Your task to perform on an android device: Add "amazon basics triple a" to the cart on amazon Image 0: 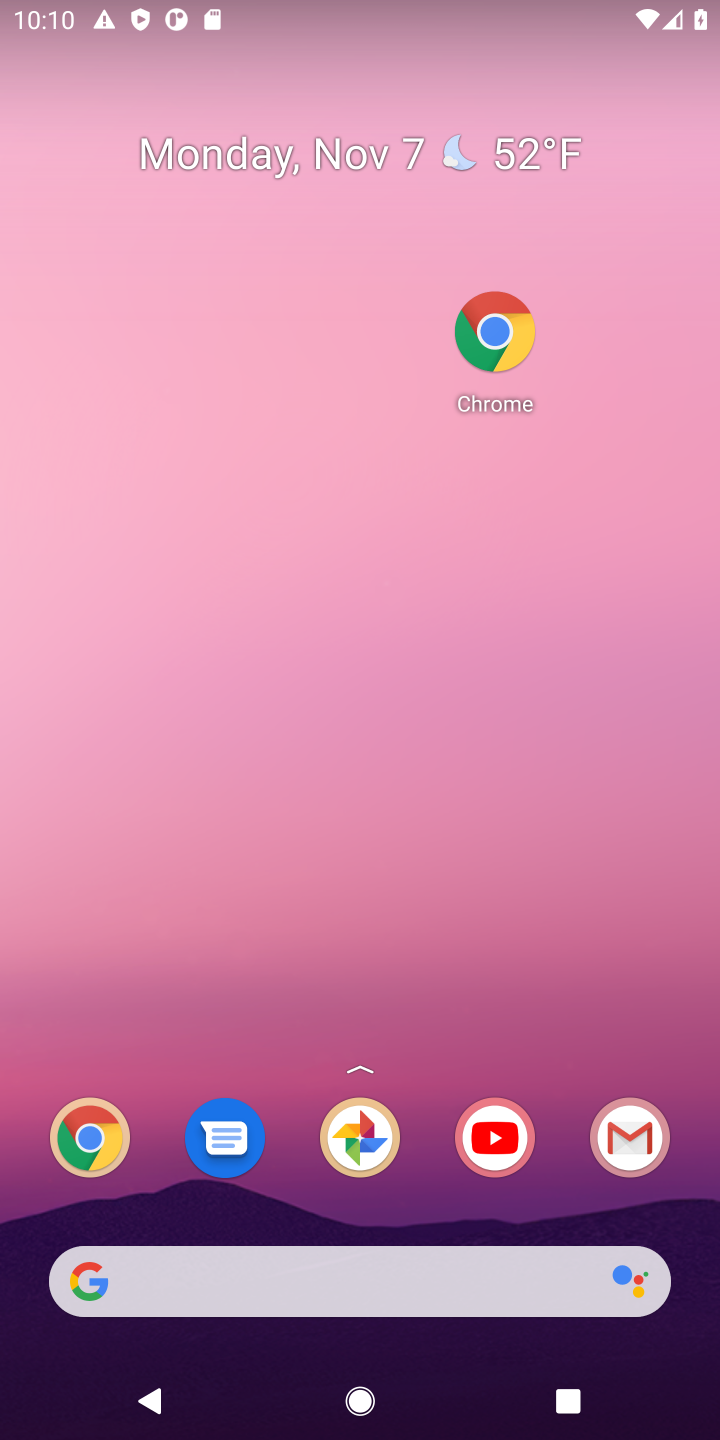
Step 0: drag from (430, 1210) to (395, 151)
Your task to perform on an android device: Add "amazon basics triple a" to the cart on amazon Image 1: 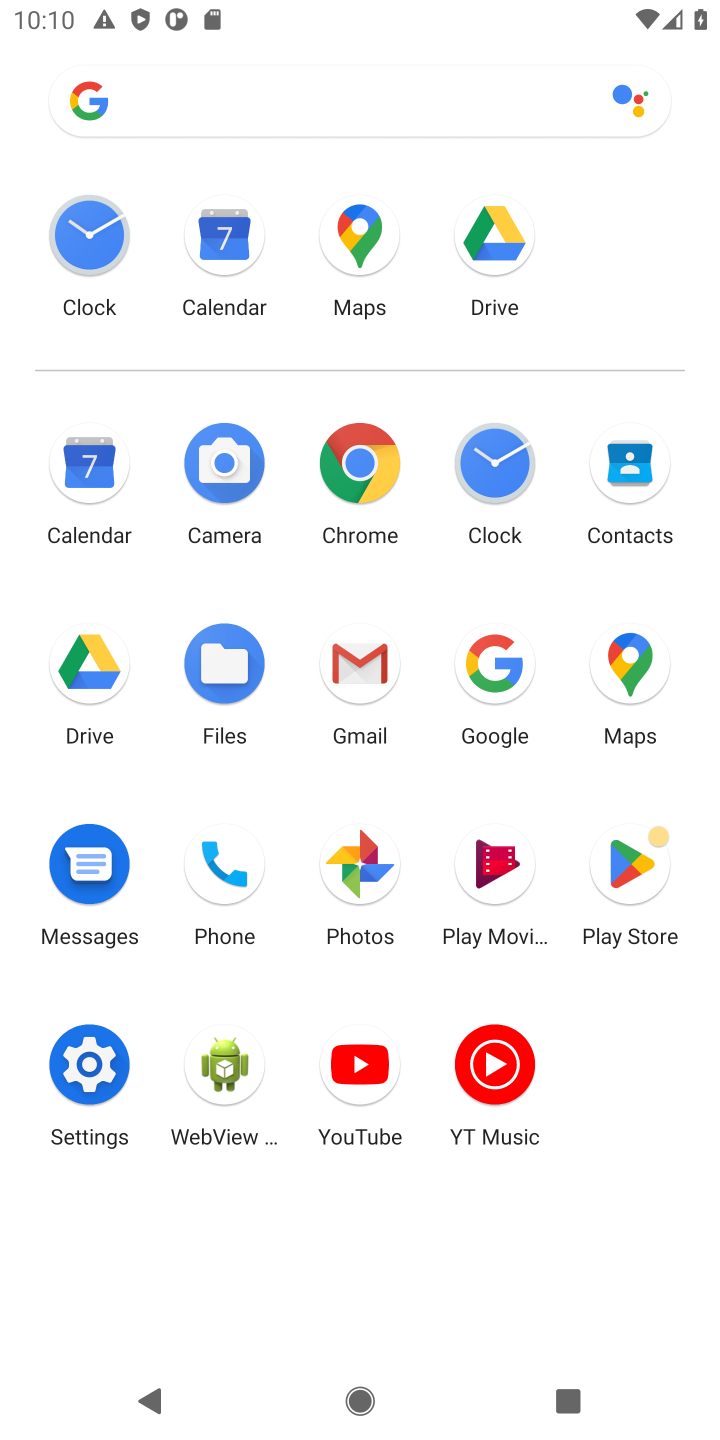
Step 1: click (355, 466)
Your task to perform on an android device: Add "amazon basics triple a" to the cart on amazon Image 2: 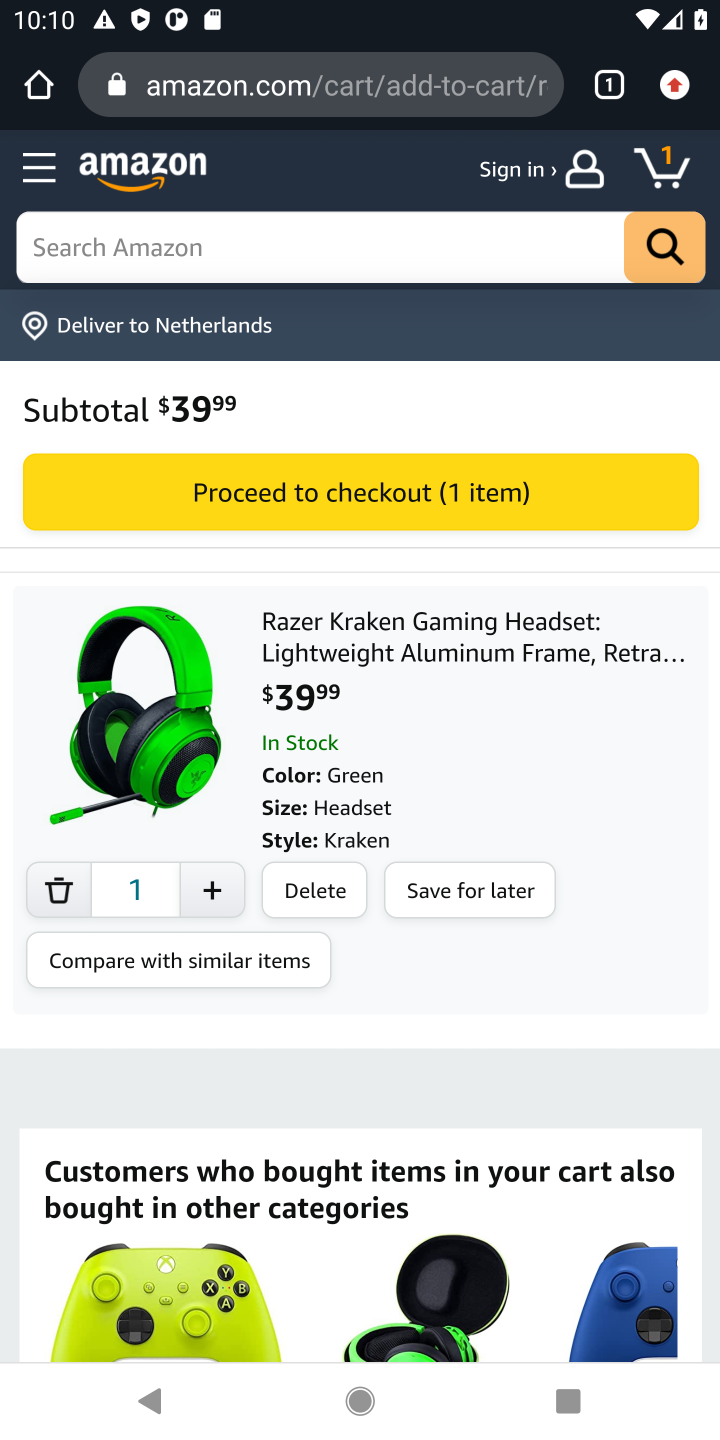
Step 2: click (335, 81)
Your task to perform on an android device: Add "amazon basics triple a" to the cart on amazon Image 3: 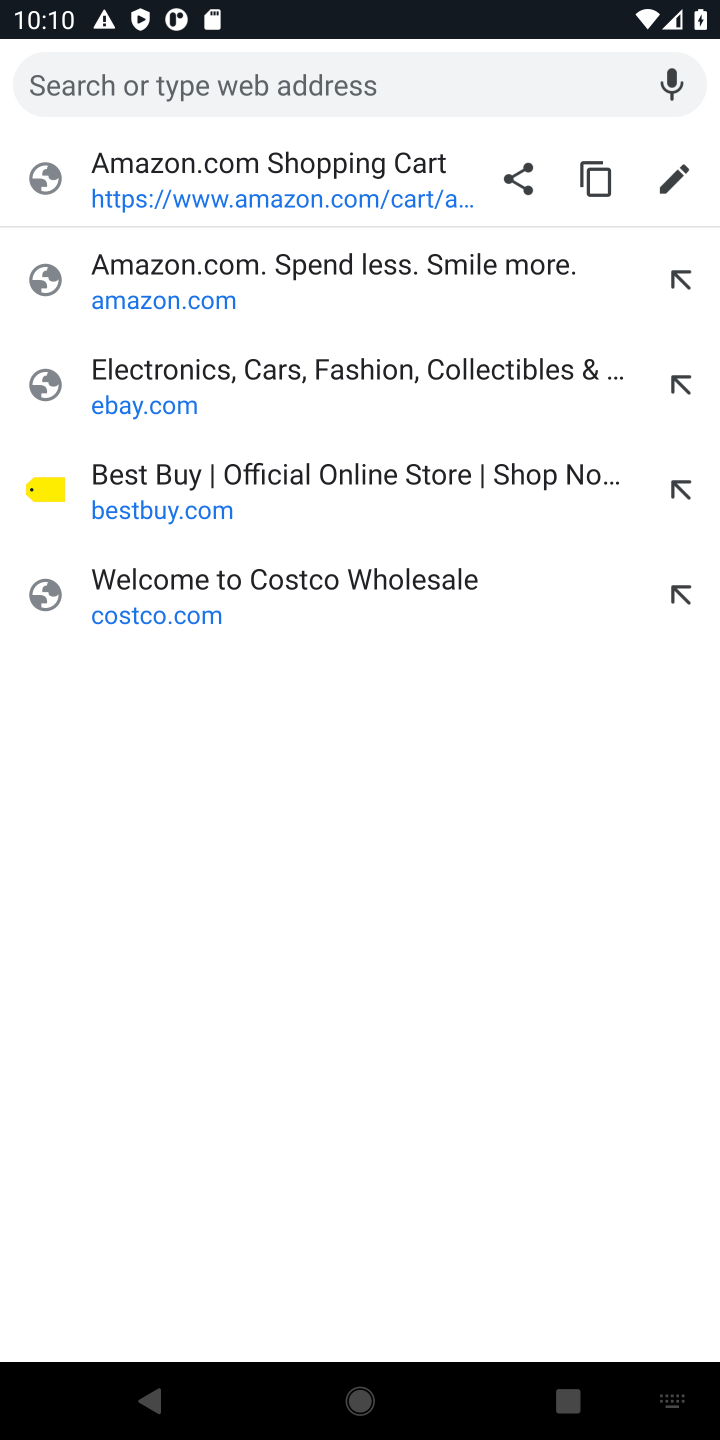
Step 3: type "amazon.com"
Your task to perform on an android device: Add "amazon basics triple a" to the cart on amazon Image 4: 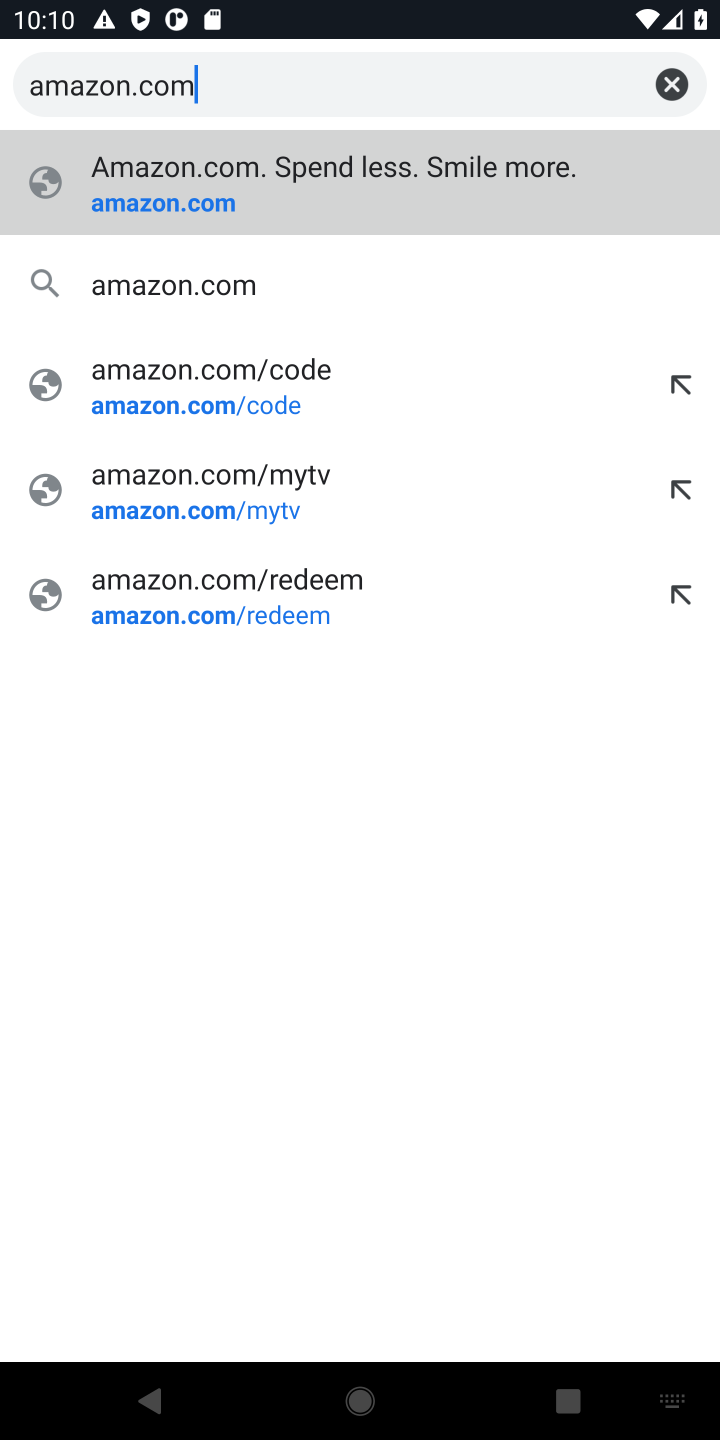
Step 4: press enter
Your task to perform on an android device: Add "amazon basics triple a" to the cart on amazon Image 5: 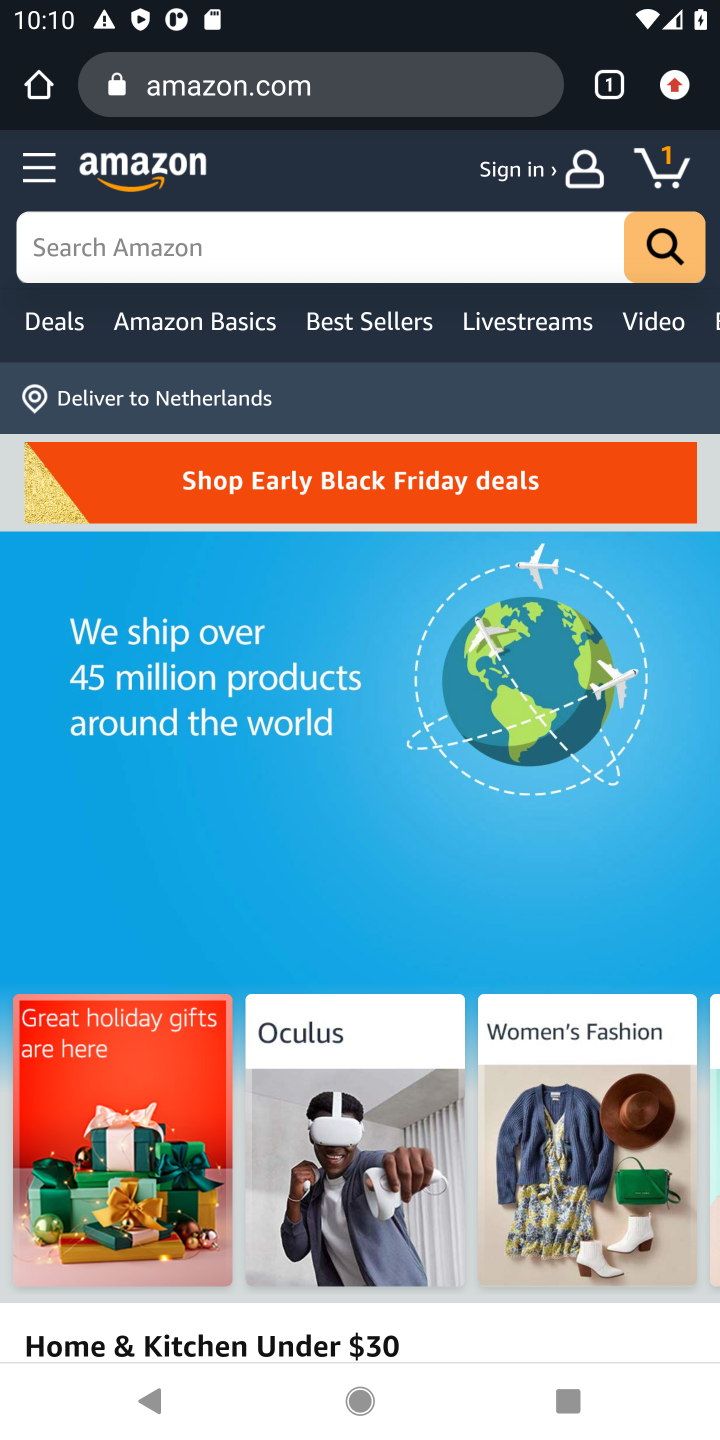
Step 5: click (363, 263)
Your task to perform on an android device: Add "amazon basics triple a" to the cart on amazon Image 6: 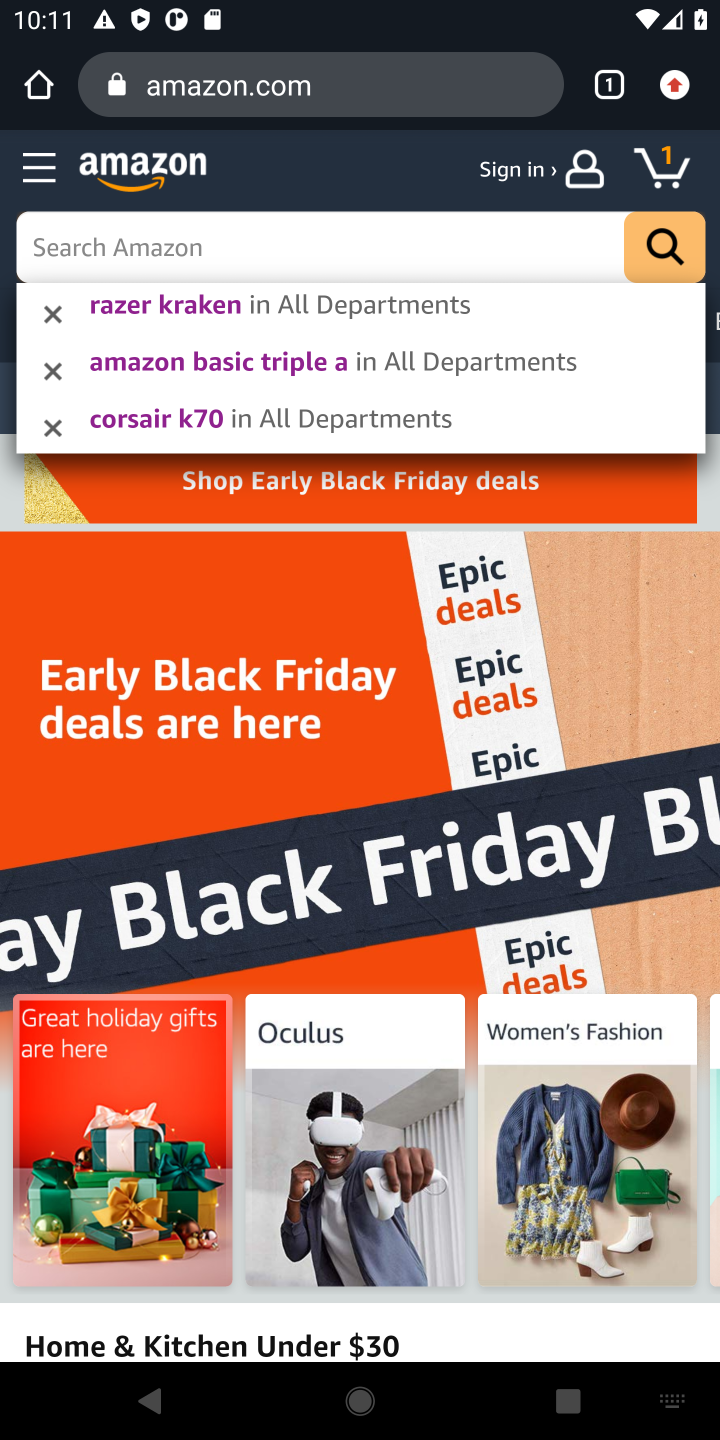
Step 6: type "amazon basics triple a"
Your task to perform on an android device: Add "amazon basics triple a" to the cart on amazon Image 7: 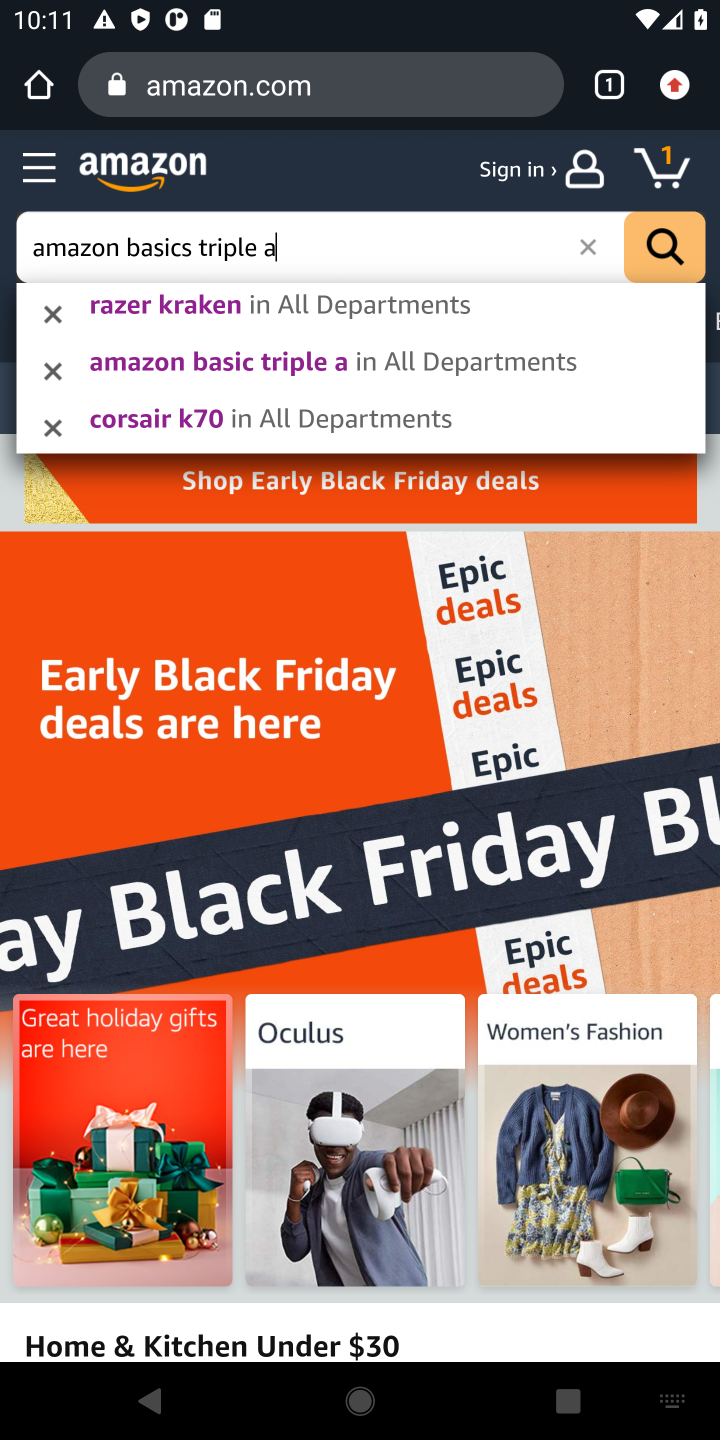
Step 7: press enter
Your task to perform on an android device: Add "amazon basics triple a" to the cart on amazon Image 8: 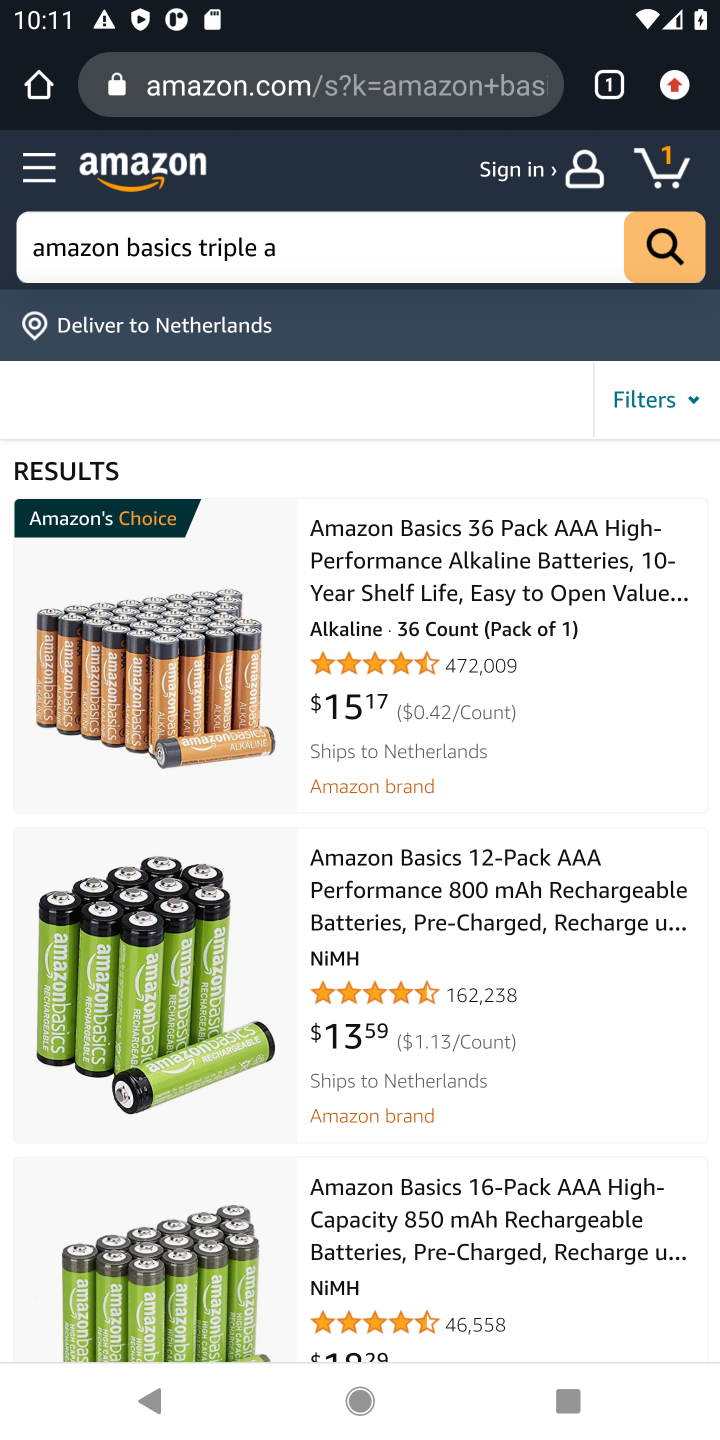
Step 8: click (468, 617)
Your task to perform on an android device: Add "amazon basics triple a" to the cart on amazon Image 9: 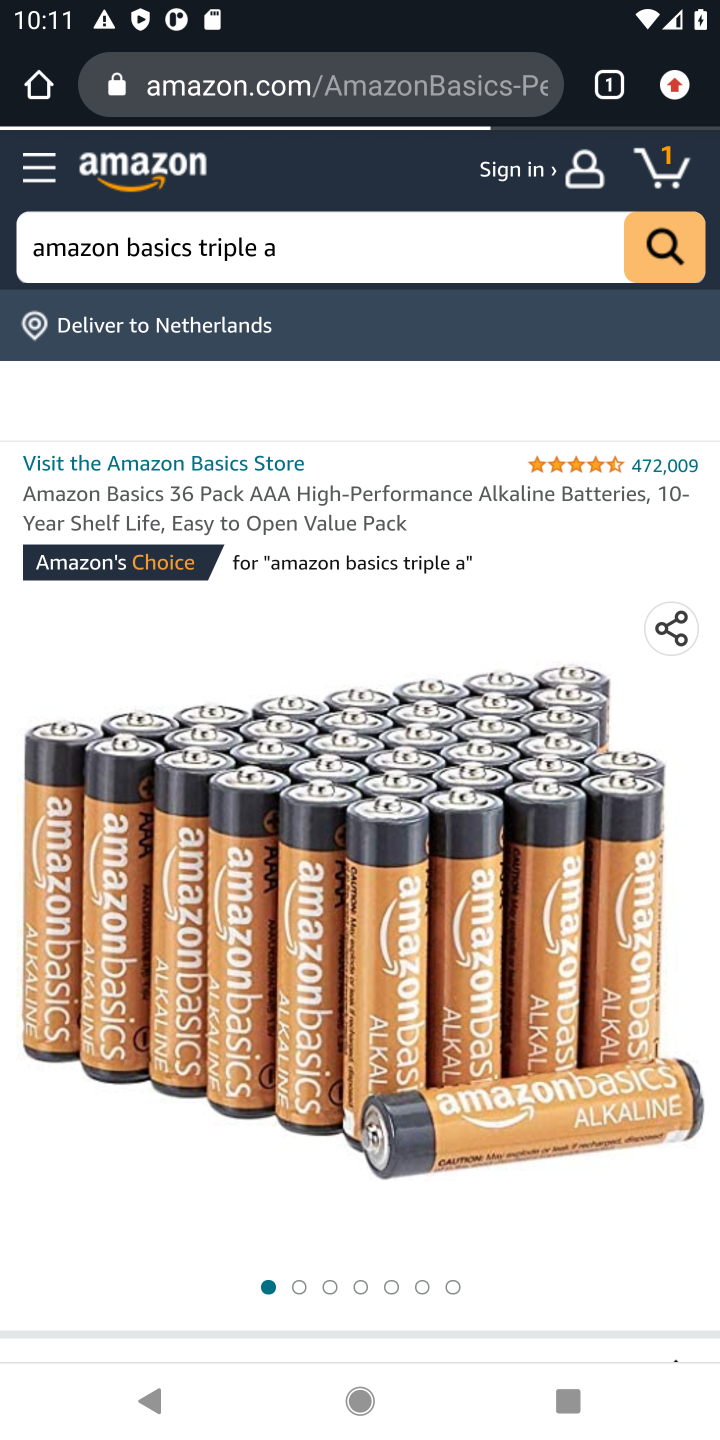
Step 9: drag from (266, 807) to (257, 434)
Your task to perform on an android device: Add "amazon basics triple a" to the cart on amazon Image 10: 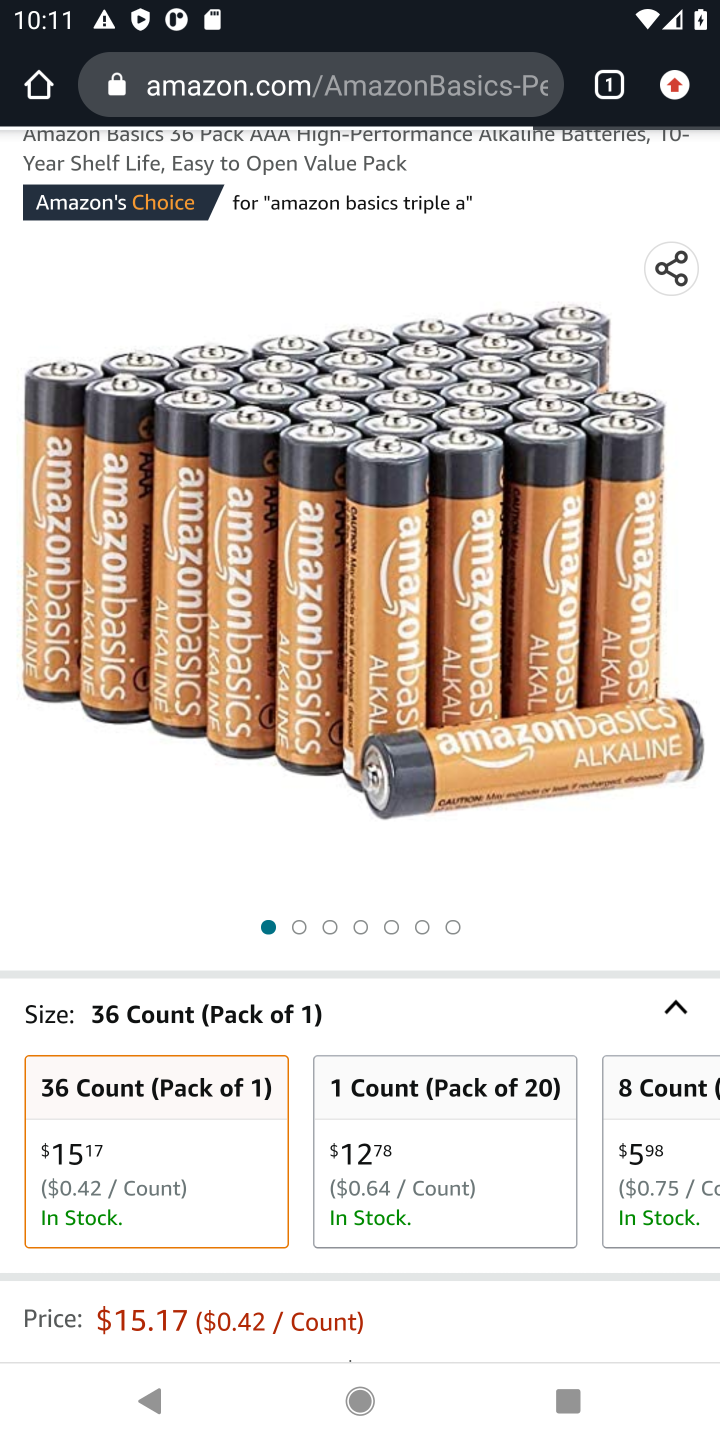
Step 10: drag from (409, 997) to (455, 444)
Your task to perform on an android device: Add "amazon basics triple a" to the cart on amazon Image 11: 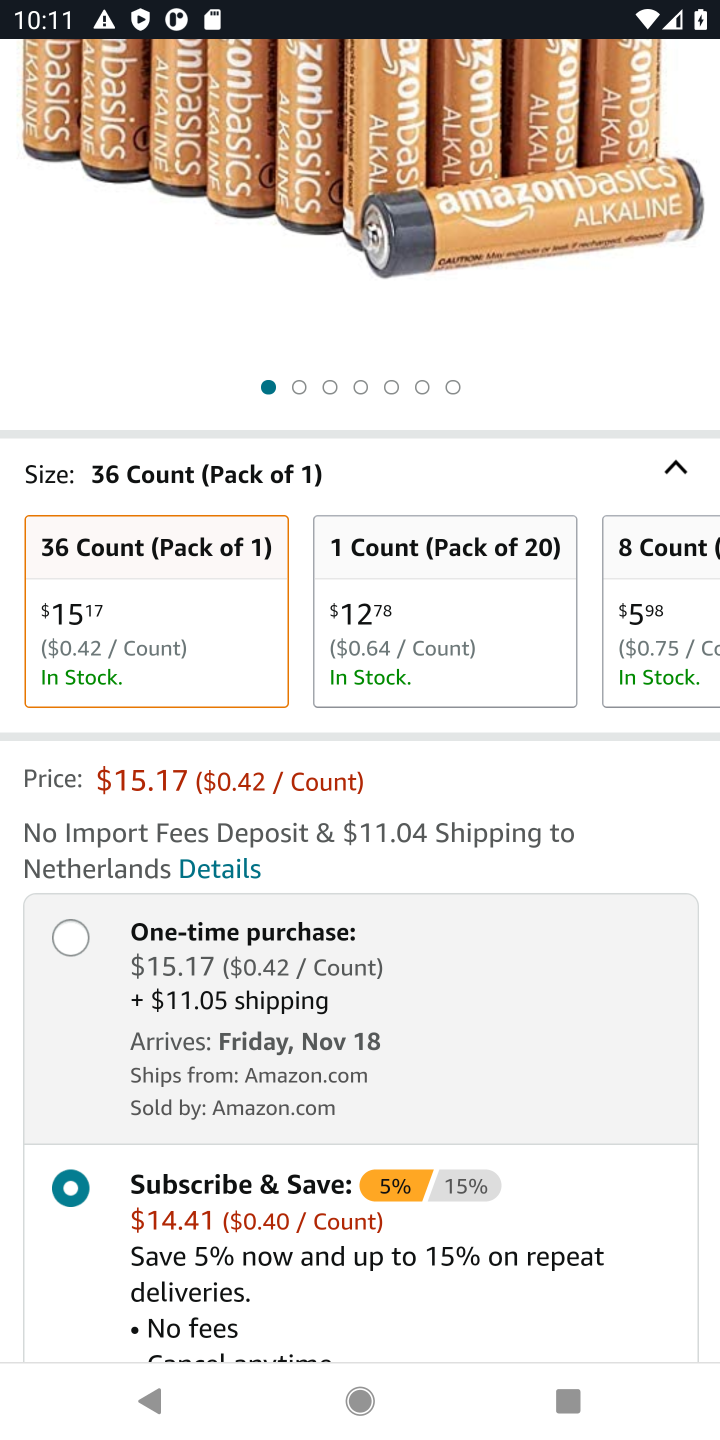
Step 11: drag from (451, 1086) to (514, 472)
Your task to perform on an android device: Add "amazon basics triple a" to the cart on amazon Image 12: 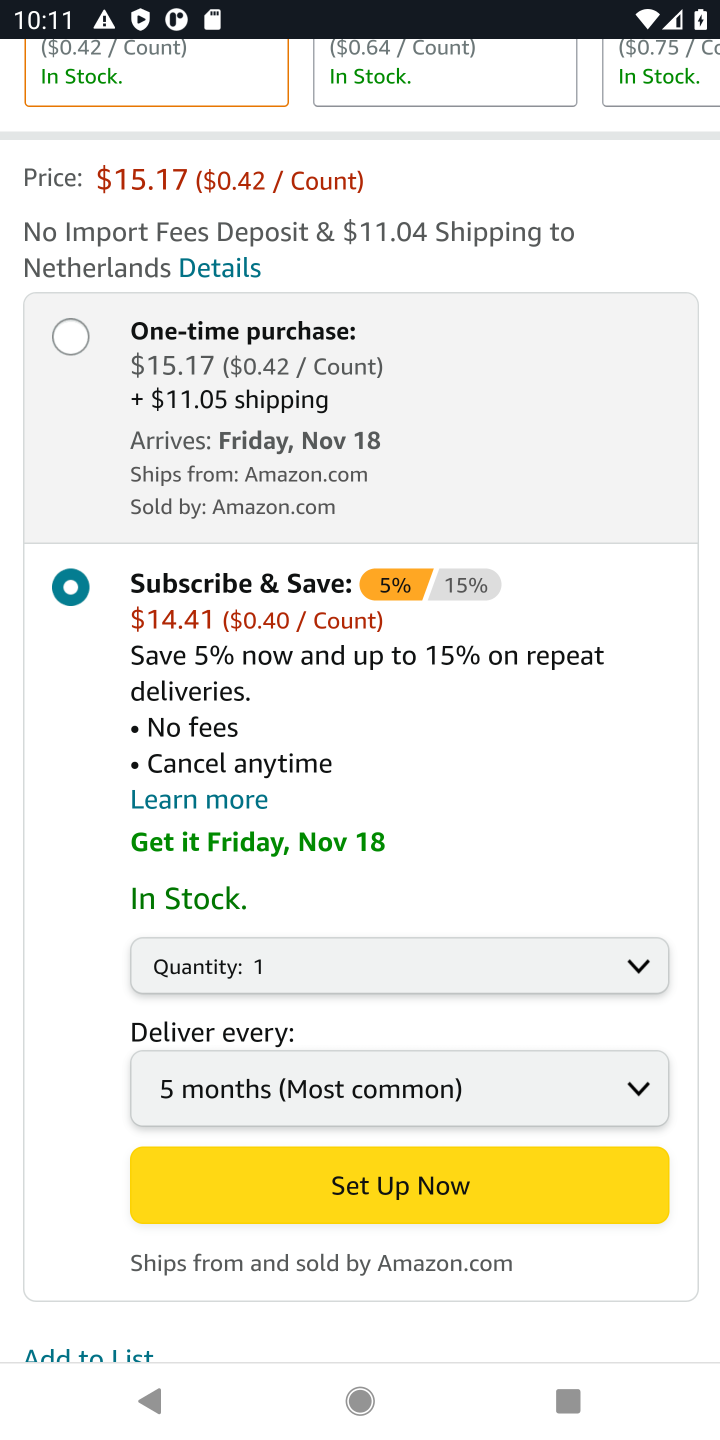
Step 12: click (234, 334)
Your task to perform on an android device: Add "amazon basics triple a" to the cart on amazon Image 13: 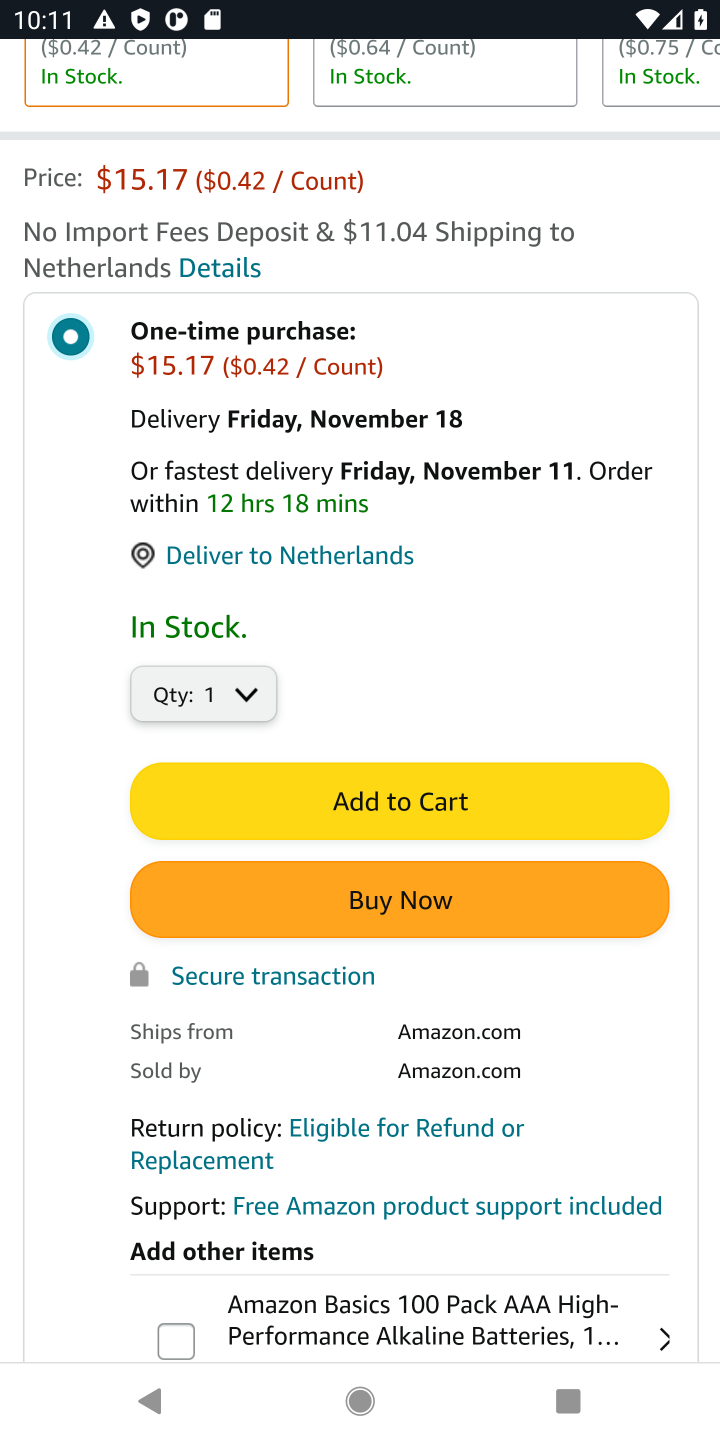
Step 13: click (488, 781)
Your task to perform on an android device: Add "amazon basics triple a" to the cart on amazon Image 14: 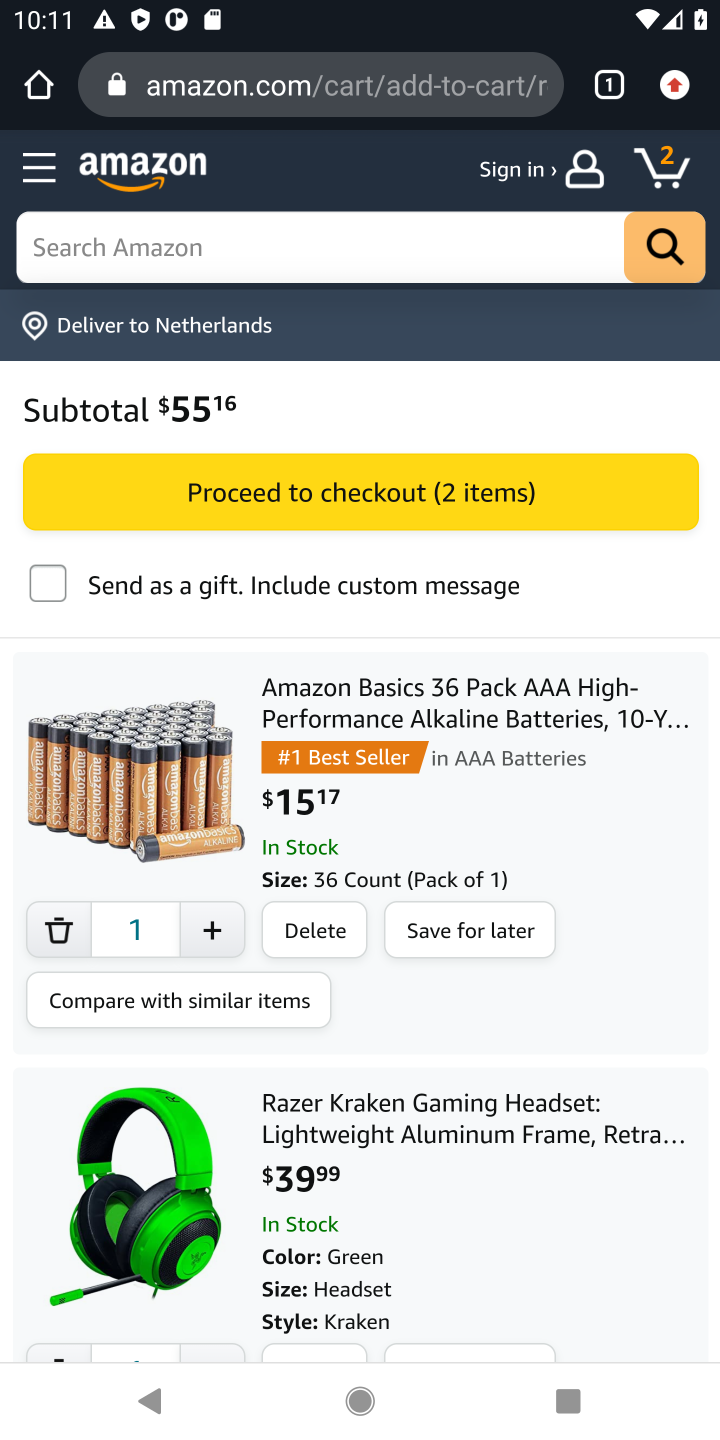
Step 14: task complete